Your task to perform on an android device: Go to Amazon Image 0: 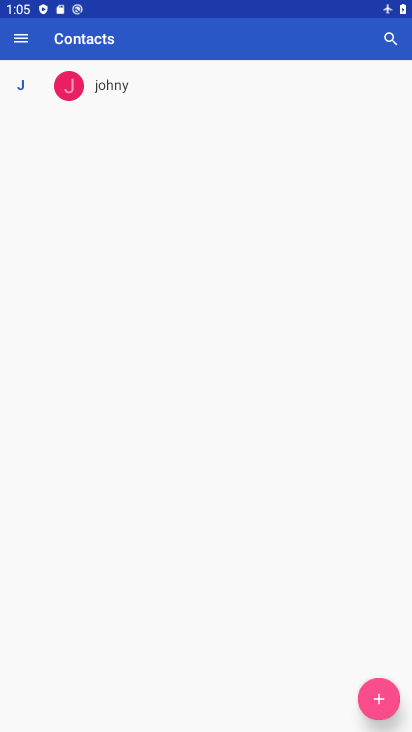
Step 0: press home button
Your task to perform on an android device: Go to Amazon Image 1: 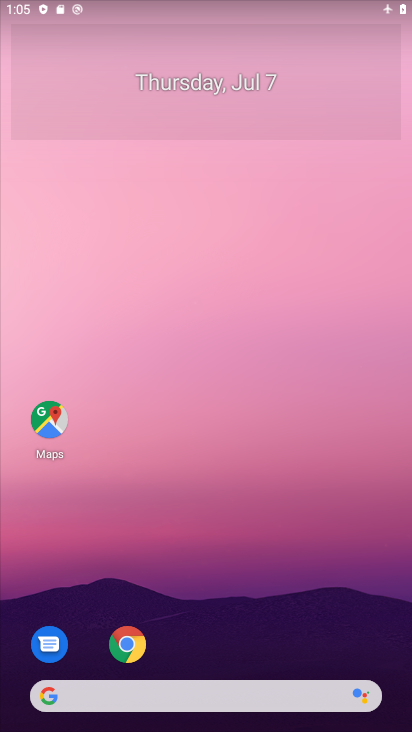
Step 1: click (130, 644)
Your task to perform on an android device: Go to Amazon Image 2: 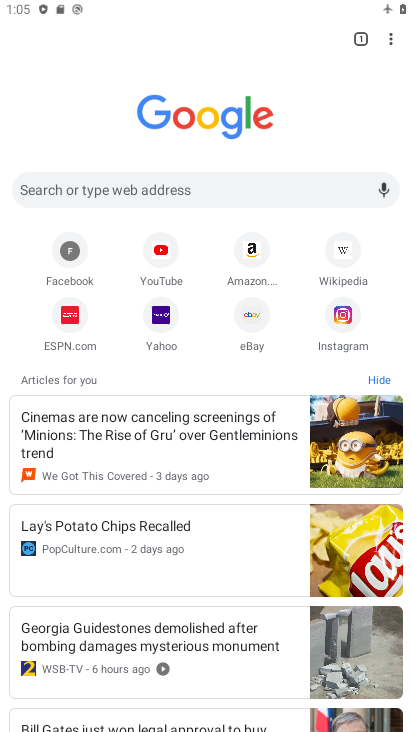
Step 2: click (252, 251)
Your task to perform on an android device: Go to Amazon Image 3: 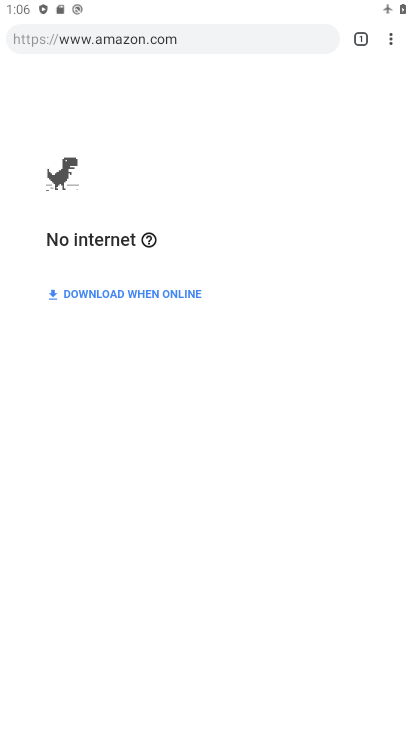
Step 3: task complete